Your task to perform on an android device: When is my next appointment? Image 0: 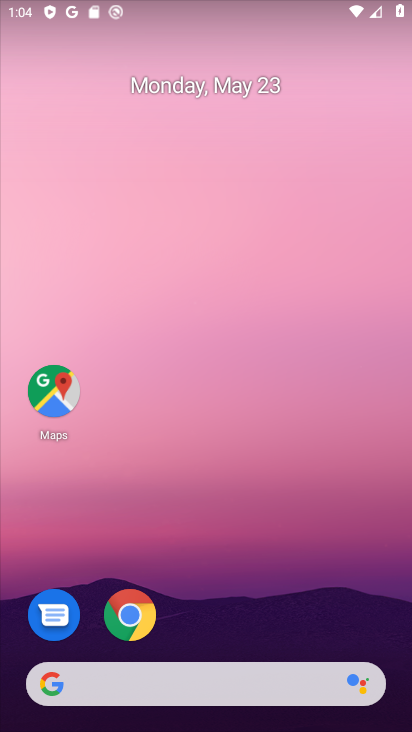
Step 0: drag from (184, 648) to (230, 197)
Your task to perform on an android device: When is my next appointment? Image 1: 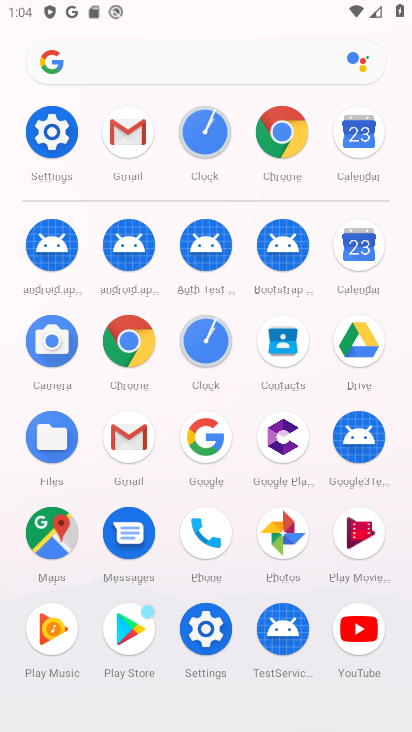
Step 1: click (358, 265)
Your task to perform on an android device: When is my next appointment? Image 2: 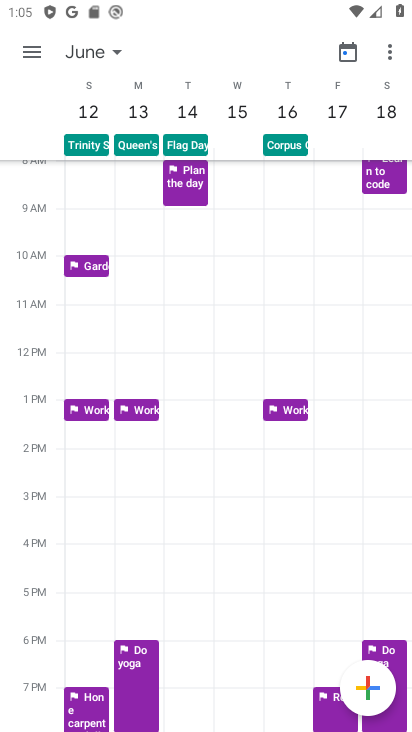
Step 2: task complete